Your task to perform on an android device: turn vacation reply on in the gmail app Image 0: 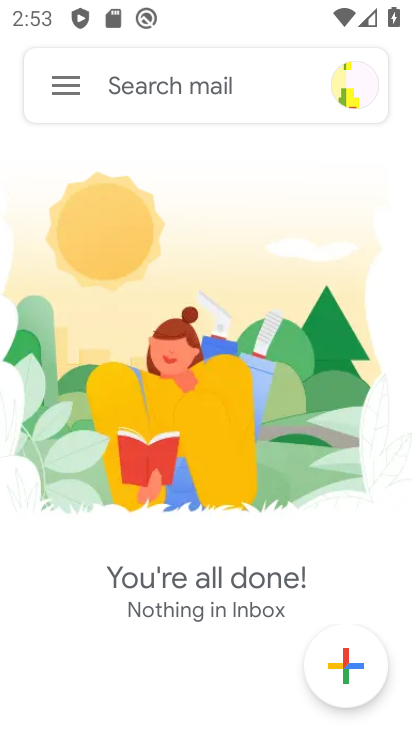
Step 0: press home button
Your task to perform on an android device: turn vacation reply on in the gmail app Image 1: 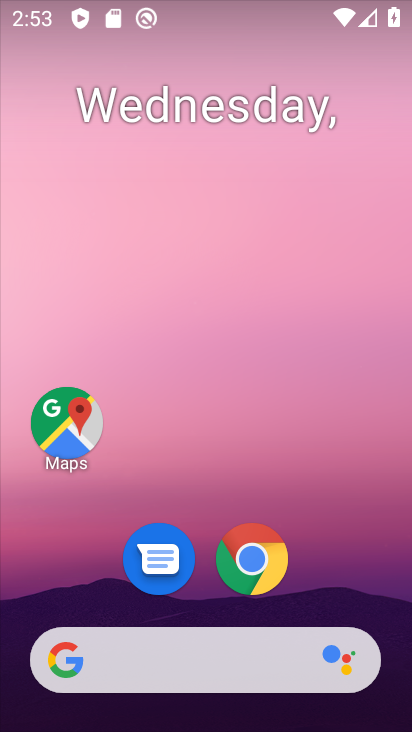
Step 1: drag from (354, 578) to (348, 102)
Your task to perform on an android device: turn vacation reply on in the gmail app Image 2: 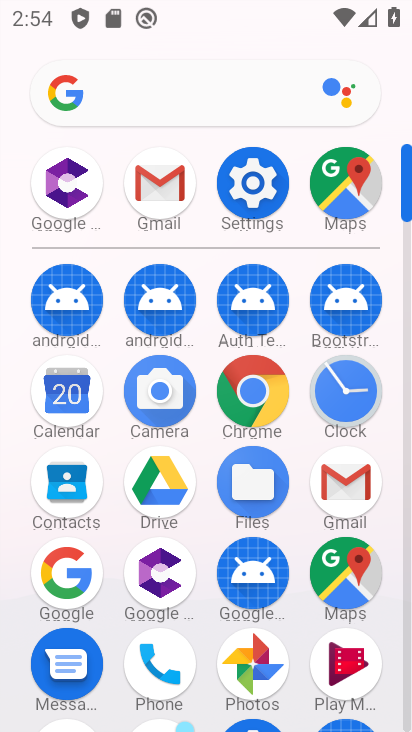
Step 2: click (365, 482)
Your task to perform on an android device: turn vacation reply on in the gmail app Image 3: 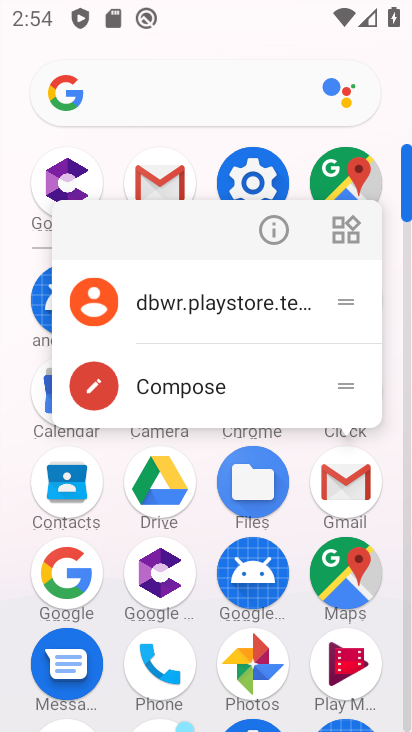
Step 3: click (358, 487)
Your task to perform on an android device: turn vacation reply on in the gmail app Image 4: 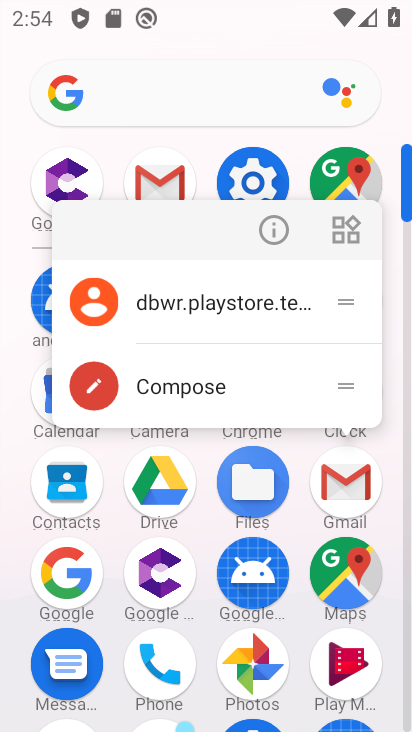
Step 4: click (346, 498)
Your task to perform on an android device: turn vacation reply on in the gmail app Image 5: 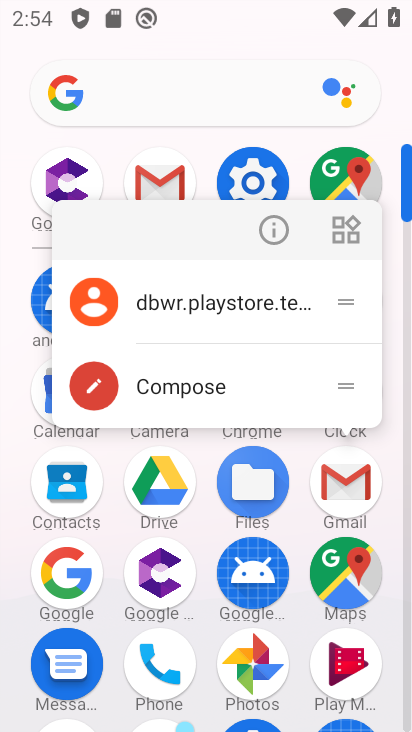
Step 5: click (341, 491)
Your task to perform on an android device: turn vacation reply on in the gmail app Image 6: 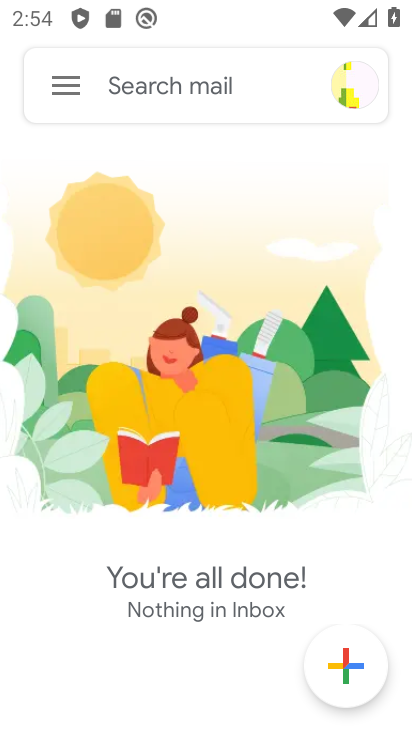
Step 6: click (56, 87)
Your task to perform on an android device: turn vacation reply on in the gmail app Image 7: 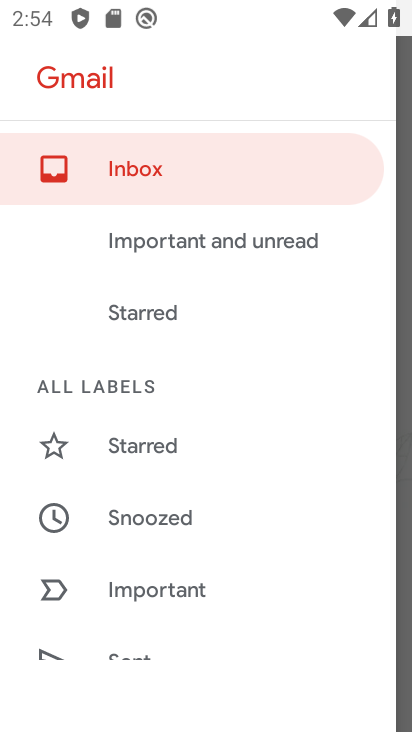
Step 7: drag from (207, 635) to (225, 251)
Your task to perform on an android device: turn vacation reply on in the gmail app Image 8: 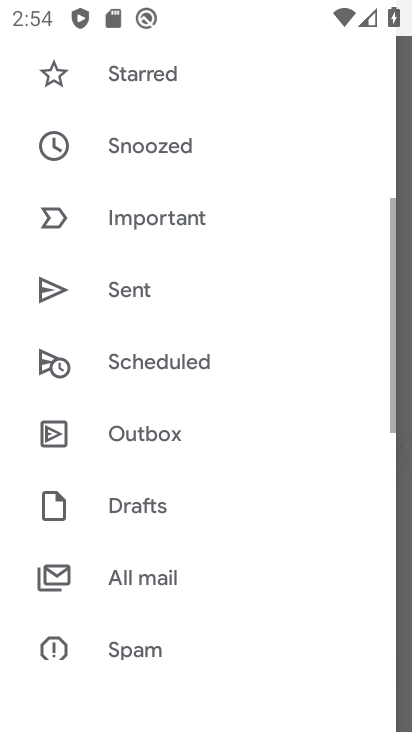
Step 8: drag from (190, 575) to (223, 261)
Your task to perform on an android device: turn vacation reply on in the gmail app Image 9: 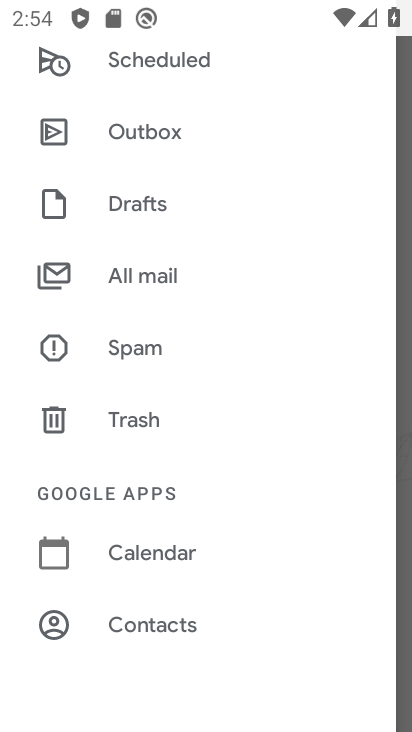
Step 9: drag from (187, 596) to (251, 257)
Your task to perform on an android device: turn vacation reply on in the gmail app Image 10: 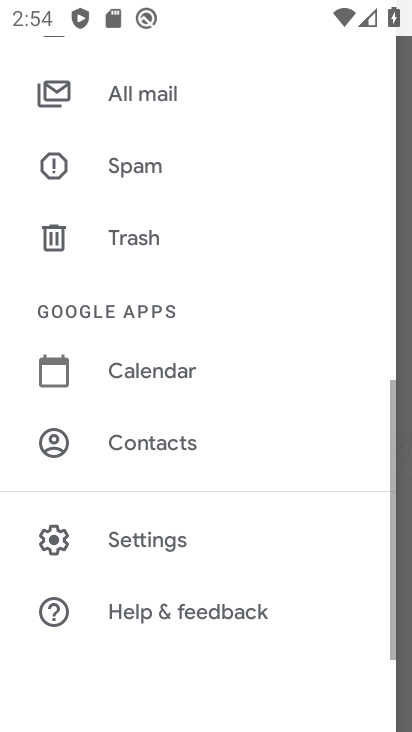
Step 10: click (150, 544)
Your task to perform on an android device: turn vacation reply on in the gmail app Image 11: 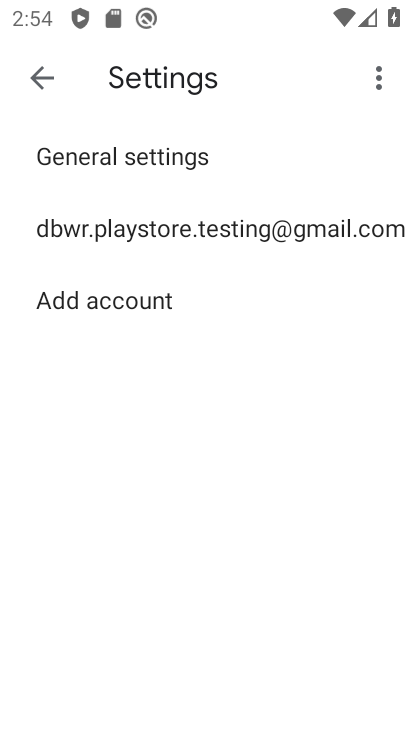
Step 11: click (141, 219)
Your task to perform on an android device: turn vacation reply on in the gmail app Image 12: 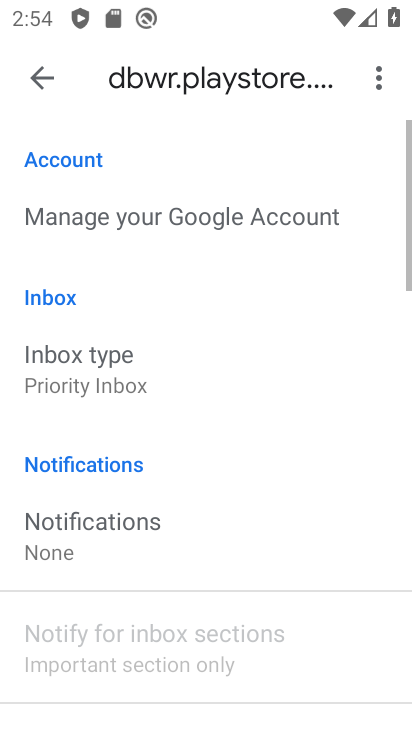
Step 12: drag from (201, 627) to (257, 304)
Your task to perform on an android device: turn vacation reply on in the gmail app Image 13: 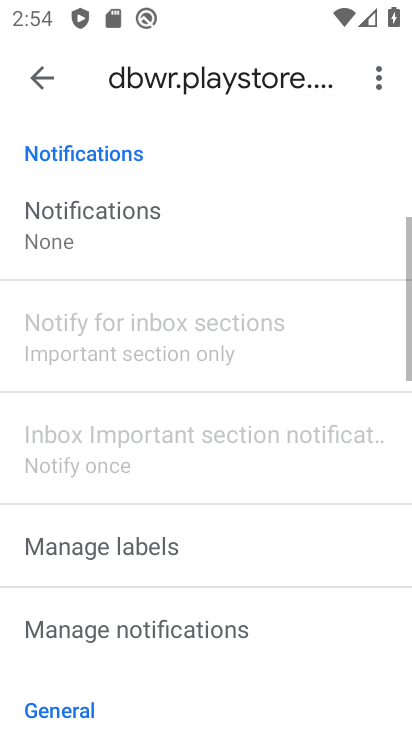
Step 13: drag from (261, 642) to (296, 226)
Your task to perform on an android device: turn vacation reply on in the gmail app Image 14: 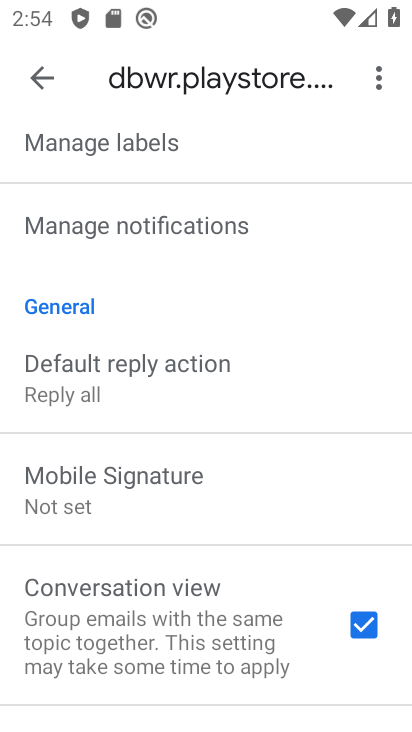
Step 14: drag from (258, 670) to (293, 344)
Your task to perform on an android device: turn vacation reply on in the gmail app Image 15: 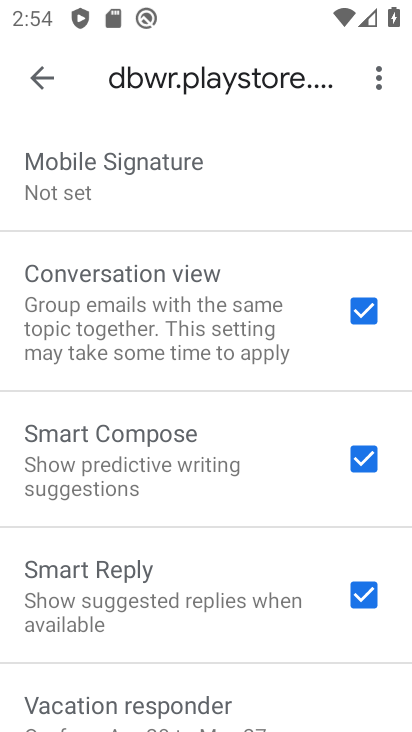
Step 15: drag from (249, 678) to (246, 323)
Your task to perform on an android device: turn vacation reply on in the gmail app Image 16: 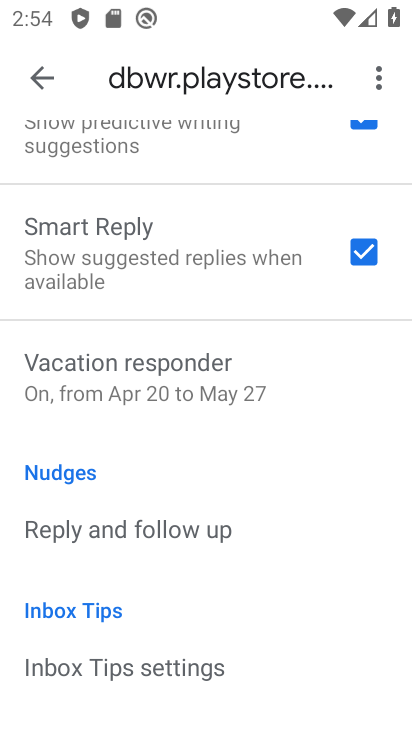
Step 16: click (177, 401)
Your task to perform on an android device: turn vacation reply on in the gmail app Image 17: 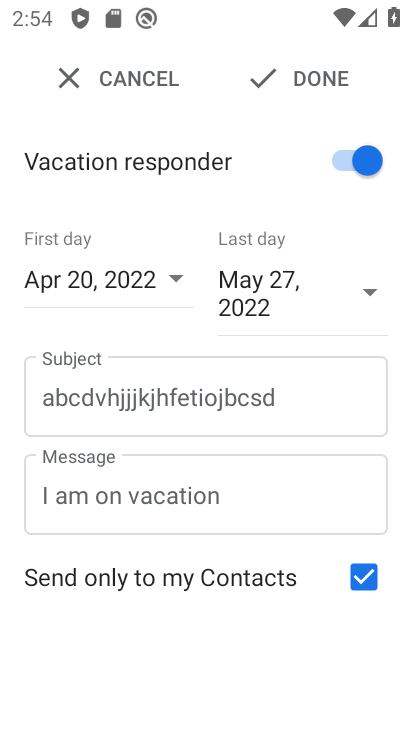
Step 17: task complete